Your task to perform on an android device: Open display settings Image 0: 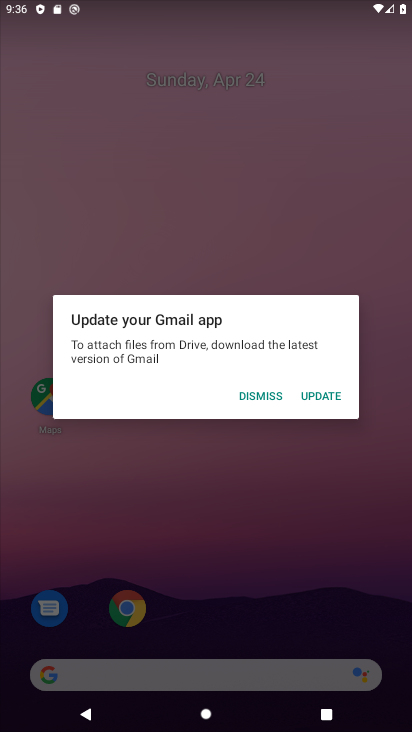
Step 0: press home button
Your task to perform on an android device: Open display settings Image 1: 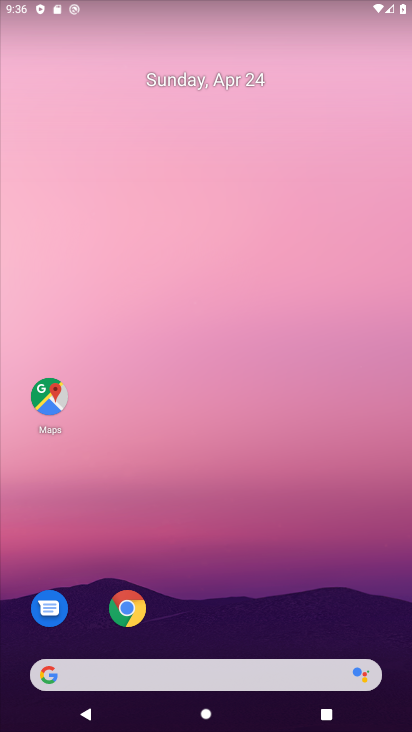
Step 1: drag from (239, 702) to (327, 146)
Your task to perform on an android device: Open display settings Image 2: 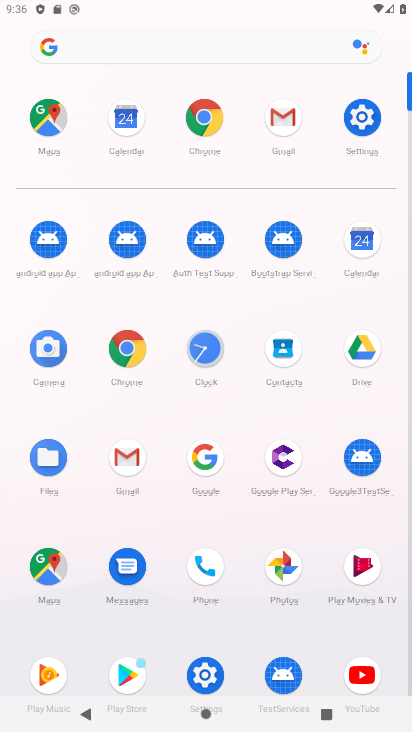
Step 2: click (360, 105)
Your task to perform on an android device: Open display settings Image 3: 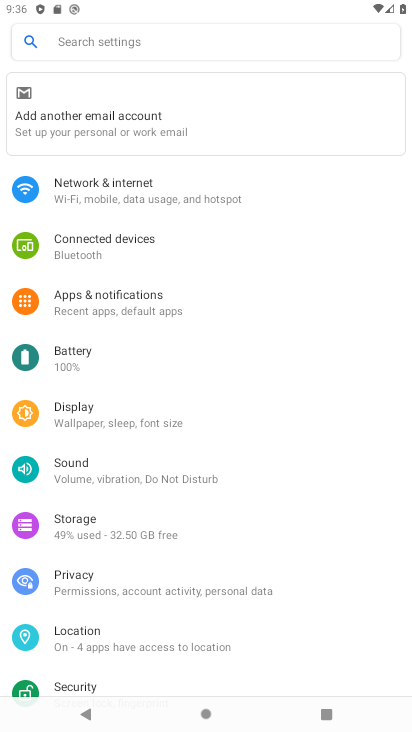
Step 3: click (91, 398)
Your task to perform on an android device: Open display settings Image 4: 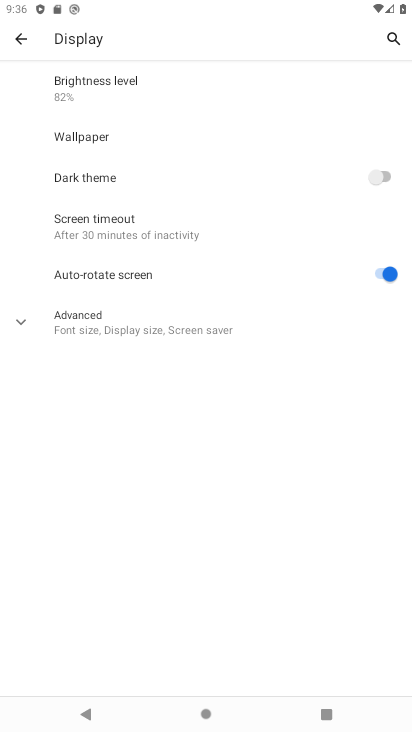
Step 4: click (55, 327)
Your task to perform on an android device: Open display settings Image 5: 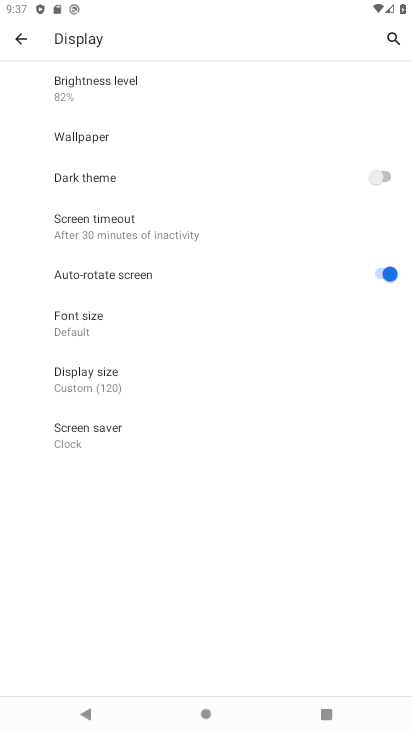
Step 5: task complete